Your task to perform on an android device: turn on the 24-hour format for clock Image 0: 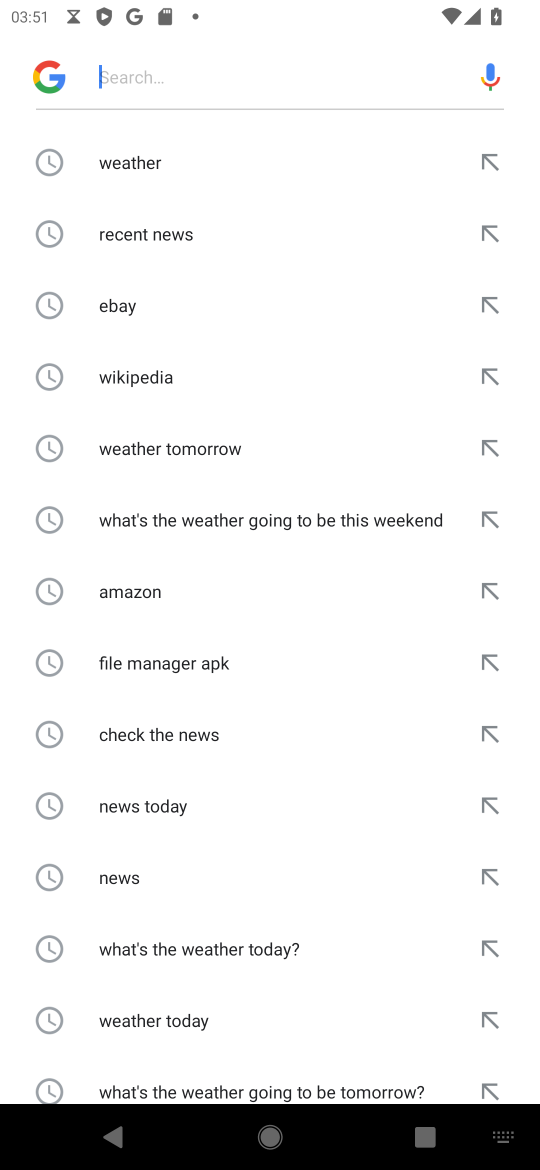
Step 0: press home button
Your task to perform on an android device: turn on the 24-hour format for clock Image 1: 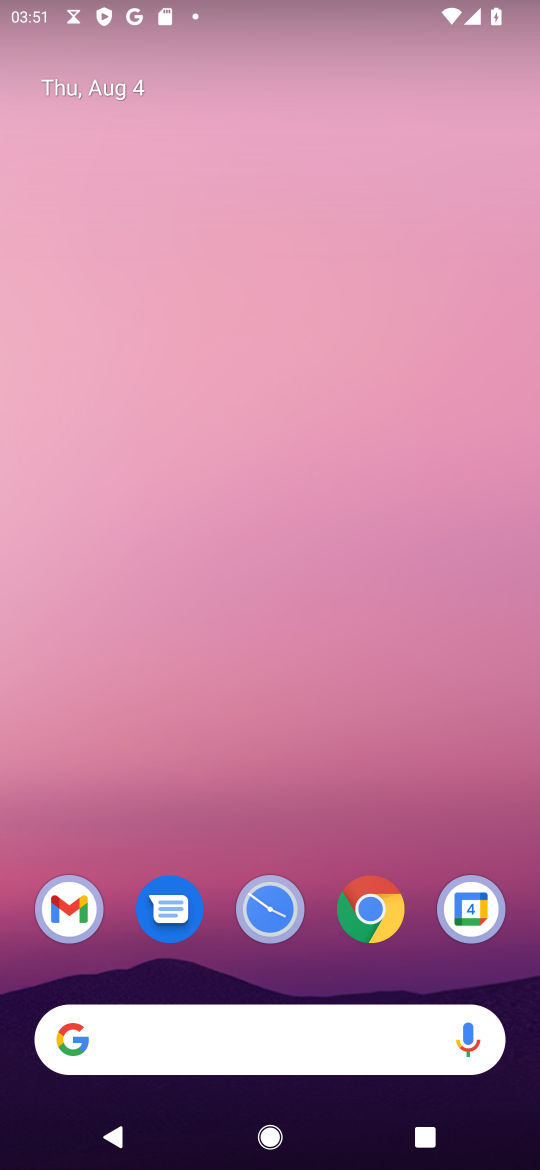
Step 1: click (264, 902)
Your task to perform on an android device: turn on the 24-hour format for clock Image 2: 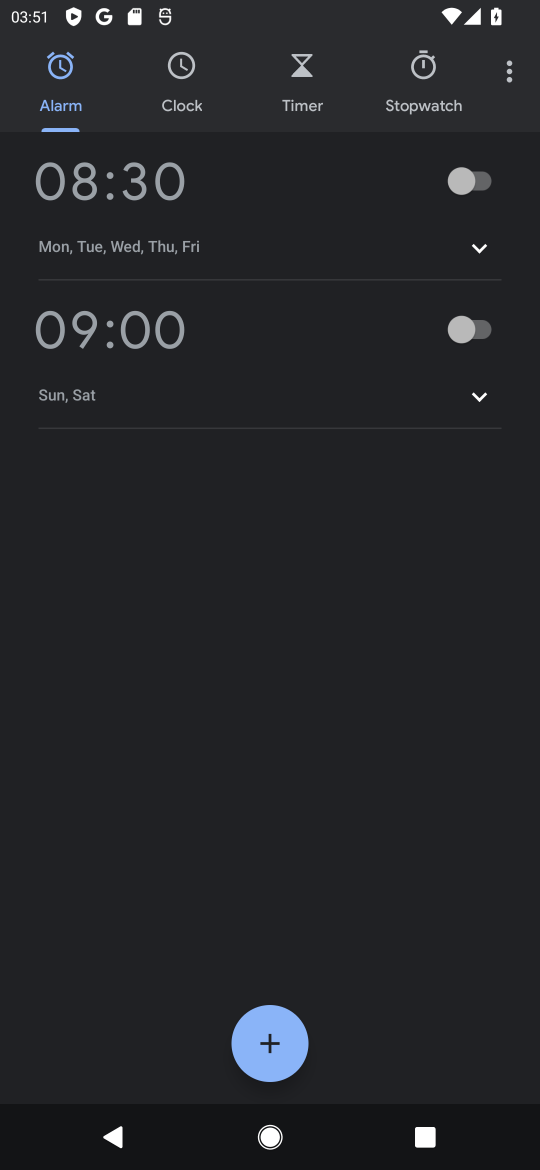
Step 2: click (520, 66)
Your task to perform on an android device: turn on the 24-hour format for clock Image 3: 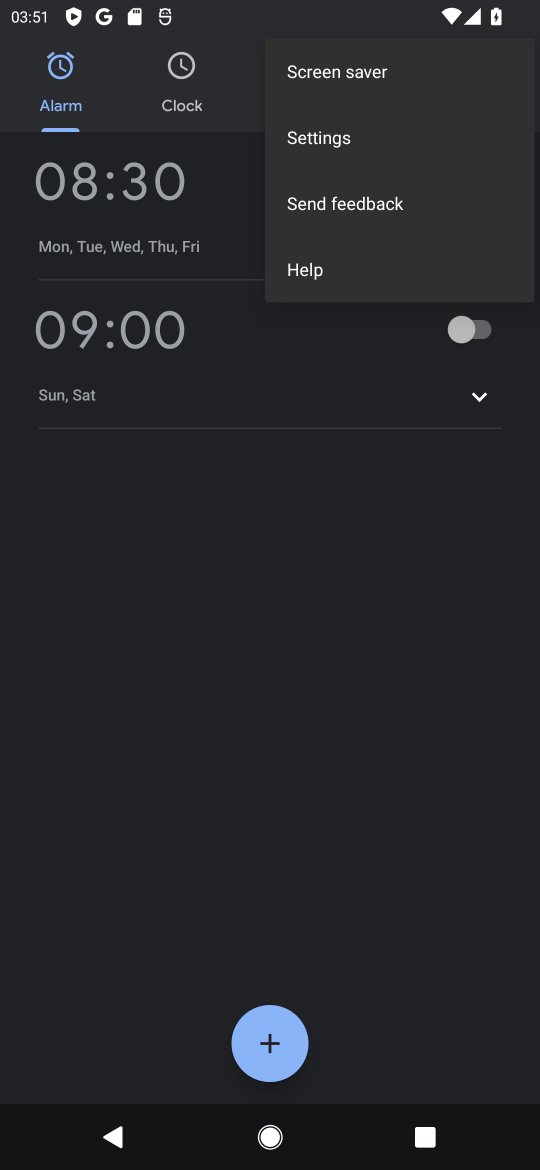
Step 3: click (354, 132)
Your task to perform on an android device: turn on the 24-hour format for clock Image 4: 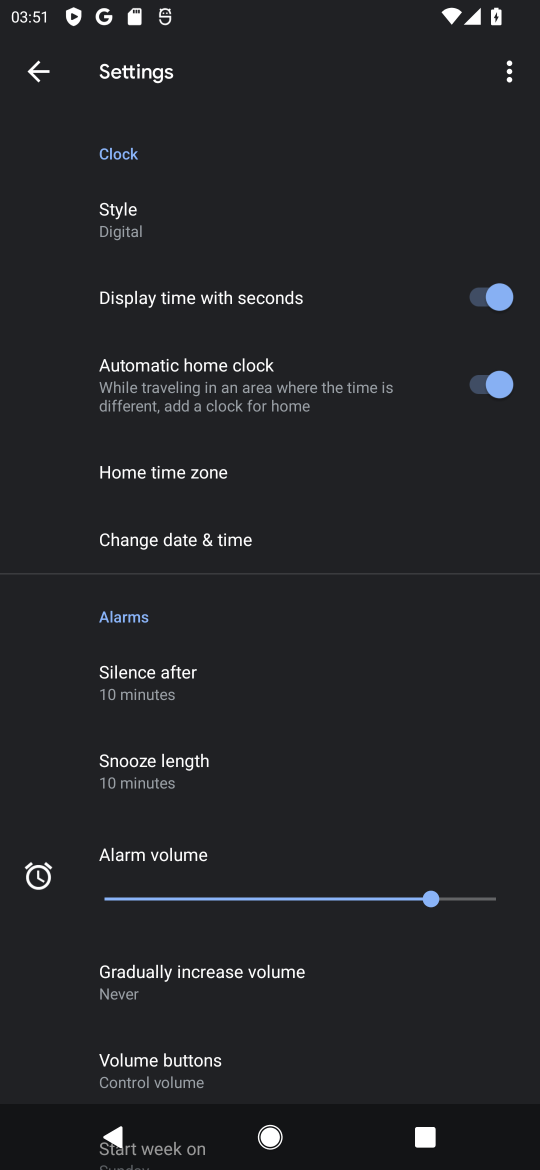
Step 4: click (177, 538)
Your task to perform on an android device: turn on the 24-hour format for clock Image 5: 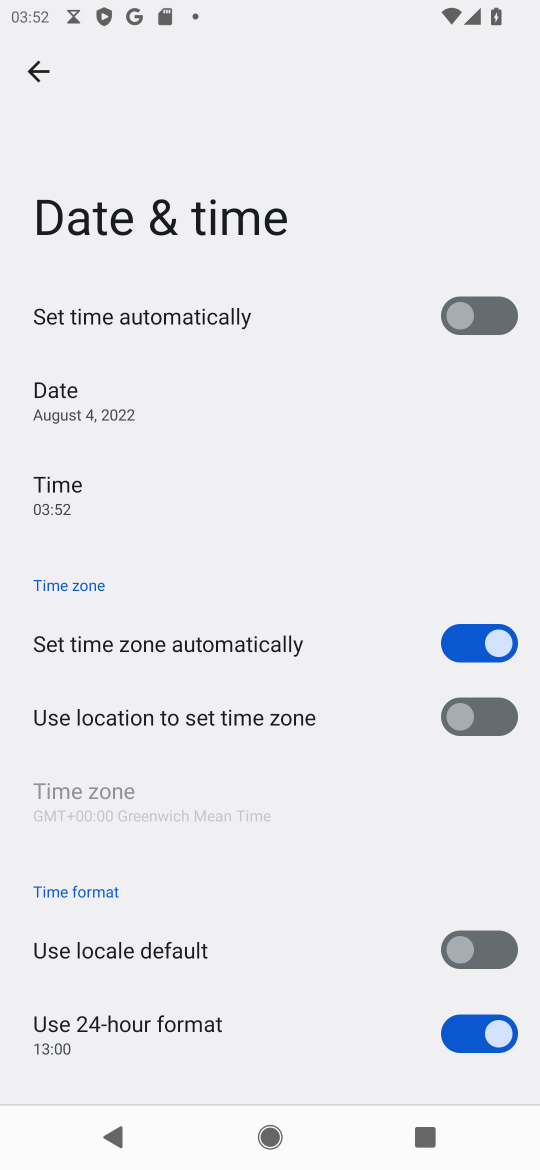
Step 5: task complete